Your task to perform on an android device: change the clock display to analog Image 0: 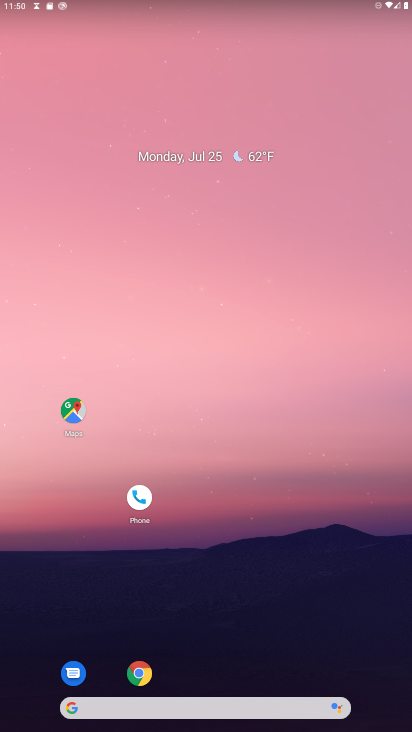
Step 0: press home button
Your task to perform on an android device: change the clock display to analog Image 1: 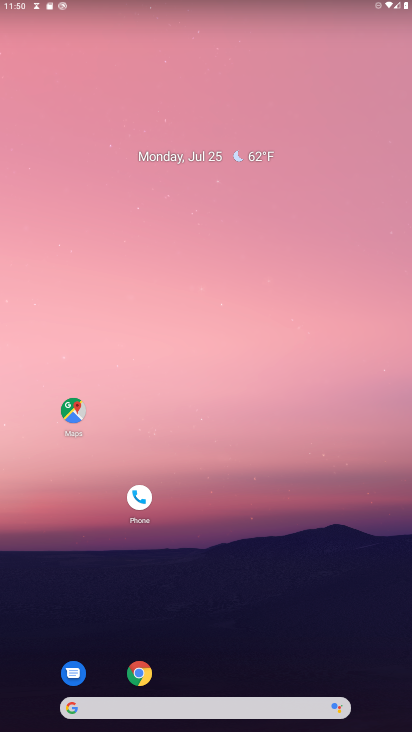
Step 1: drag from (311, 438) to (281, 52)
Your task to perform on an android device: change the clock display to analog Image 2: 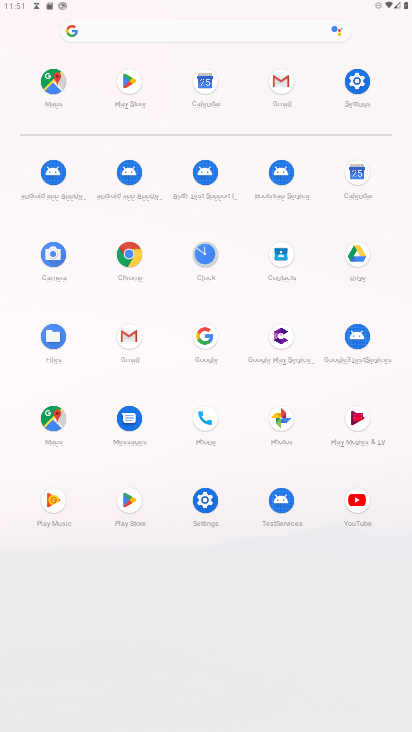
Step 2: click (210, 256)
Your task to perform on an android device: change the clock display to analog Image 3: 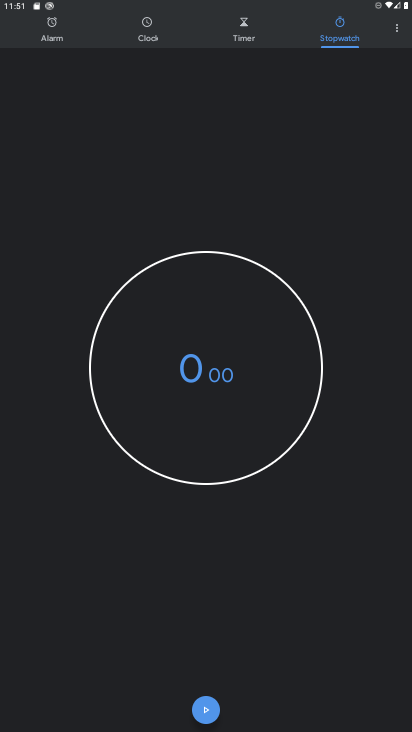
Step 3: click (393, 30)
Your task to perform on an android device: change the clock display to analog Image 4: 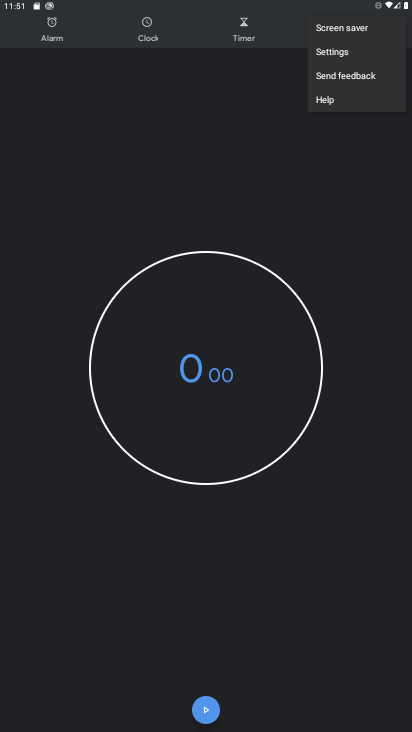
Step 4: click (340, 53)
Your task to perform on an android device: change the clock display to analog Image 5: 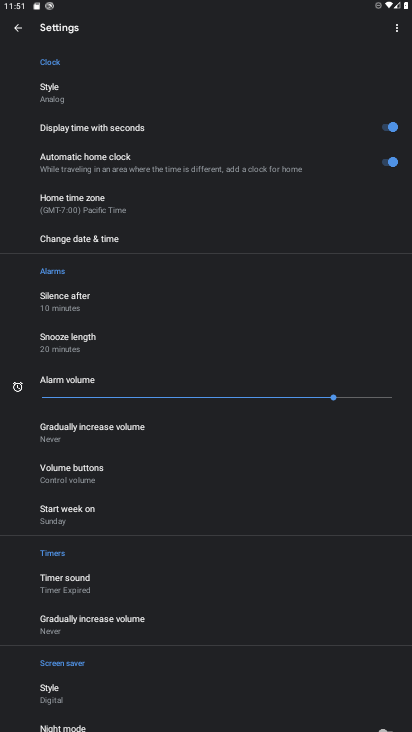
Step 5: task complete